Your task to perform on an android device: all mails in gmail Image 0: 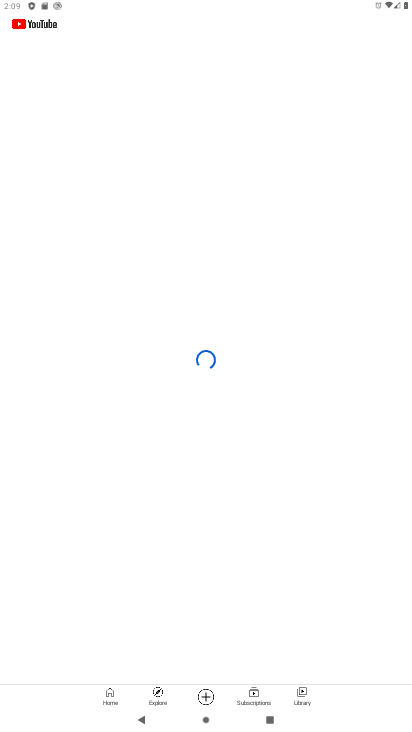
Step 0: press home button
Your task to perform on an android device: all mails in gmail Image 1: 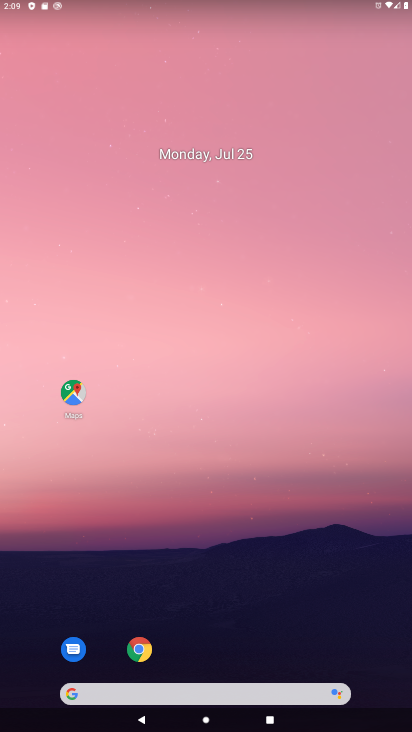
Step 1: drag from (371, 660) to (337, 75)
Your task to perform on an android device: all mails in gmail Image 2: 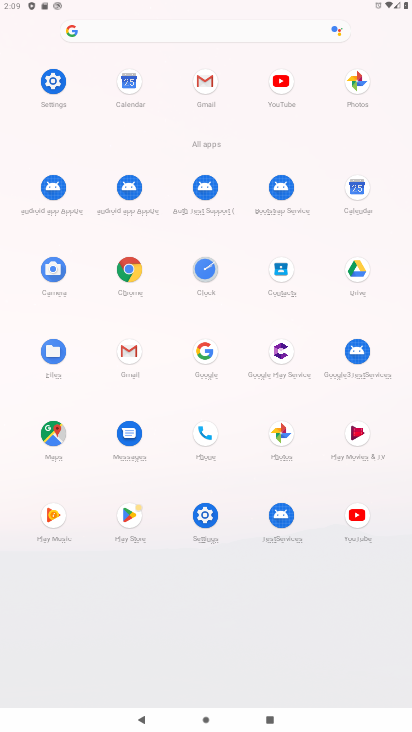
Step 2: click (130, 352)
Your task to perform on an android device: all mails in gmail Image 3: 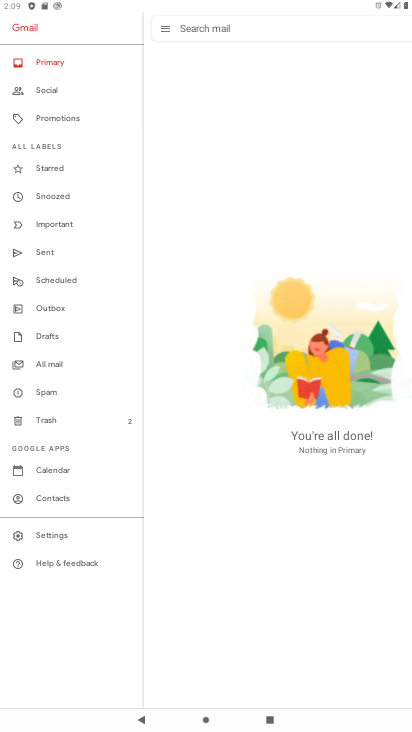
Step 3: click (50, 358)
Your task to perform on an android device: all mails in gmail Image 4: 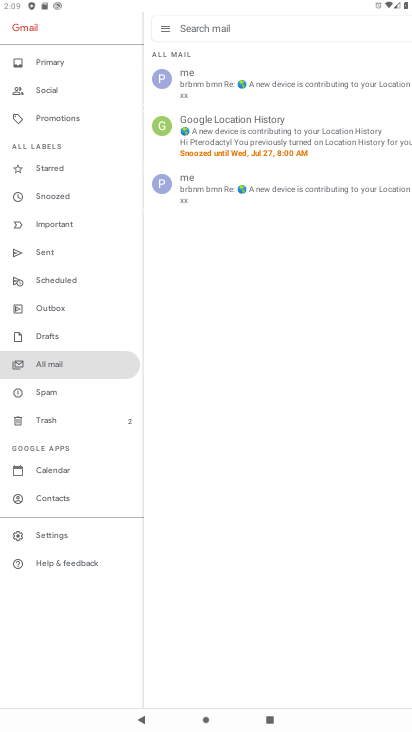
Step 4: task complete